Your task to perform on an android device: uninstall "Google Home" Image 0: 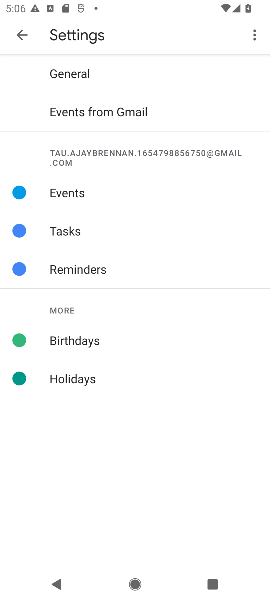
Step 0: press home button
Your task to perform on an android device: uninstall "Google Home" Image 1: 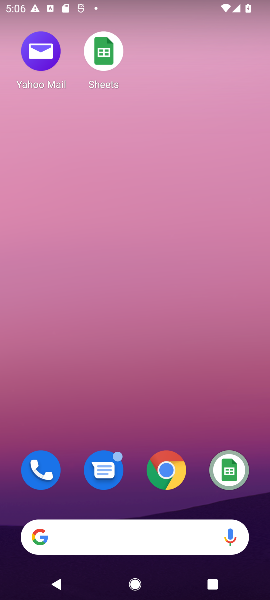
Step 1: drag from (152, 502) to (154, 195)
Your task to perform on an android device: uninstall "Google Home" Image 2: 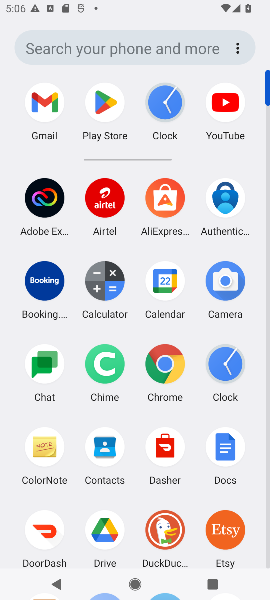
Step 2: click (115, 102)
Your task to perform on an android device: uninstall "Google Home" Image 3: 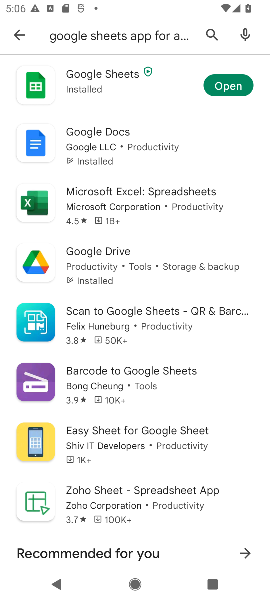
Step 3: click (16, 31)
Your task to perform on an android device: uninstall "Google Home" Image 4: 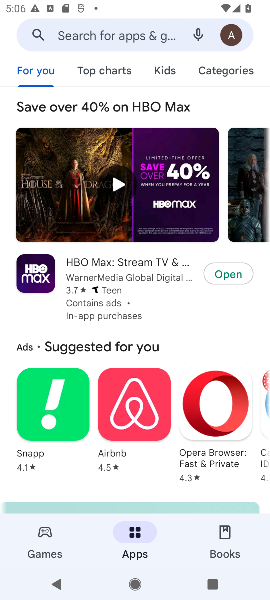
Step 4: click (94, 33)
Your task to perform on an android device: uninstall "Google Home" Image 5: 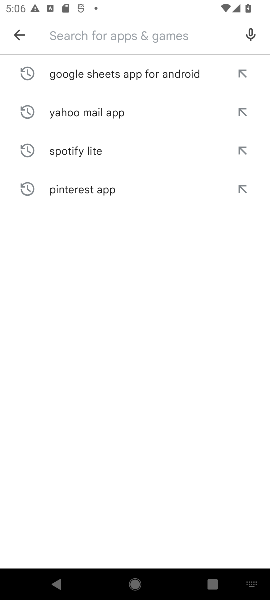
Step 5: type "google home "
Your task to perform on an android device: uninstall "Google Home" Image 6: 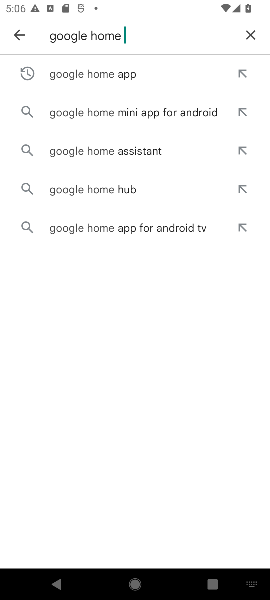
Step 6: click (77, 65)
Your task to perform on an android device: uninstall "Google Home" Image 7: 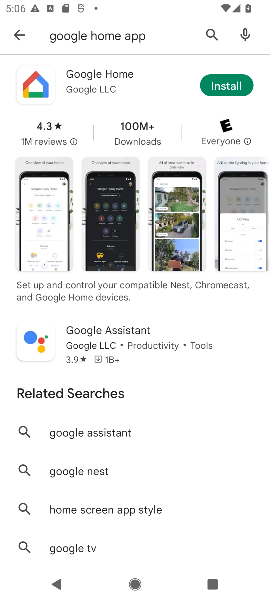
Step 7: click (124, 76)
Your task to perform on an android device: uninstall "Google Home" Image 8: 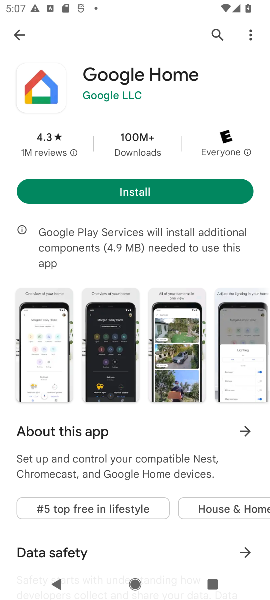
Step 8: task complete